Your task to perform on an android device: Open sound settings Image 0: 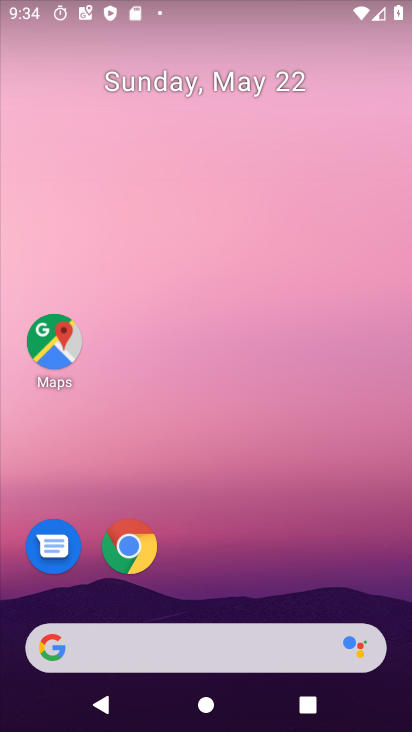
Step 0: click (310, 1)
Your task to perform on an android device: Open sound settings Image 1: 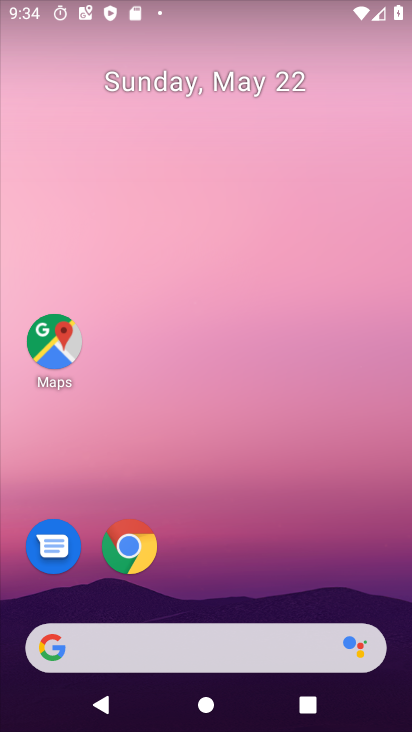
Step 1: drag from (204, 579) to (272, 68)
Your task to perform on an android device: Open sound settings Image 2: 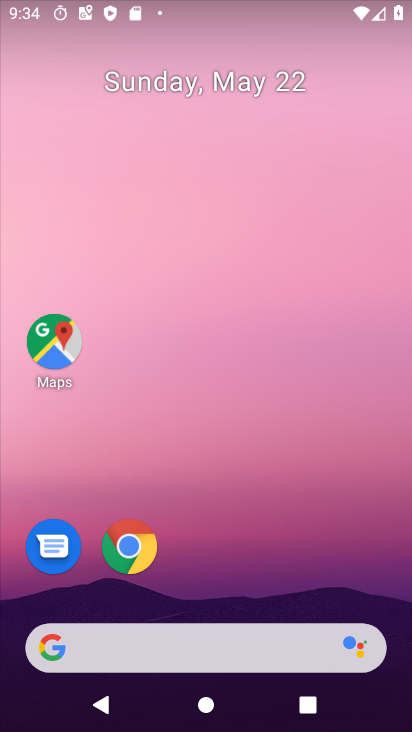
Step 2: drag from (190, 560) to (302, 68)
Your task to perform on an android device: Open sound settings Image 3: 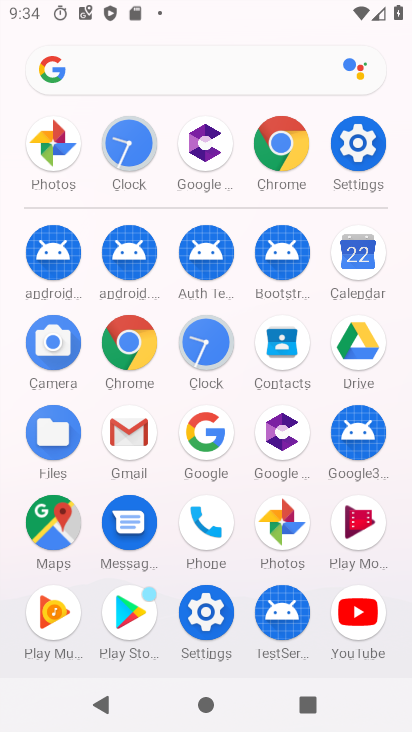
Step 3: click (350, 149)
Your task to perform on an android device: Open sound settings Image 4: 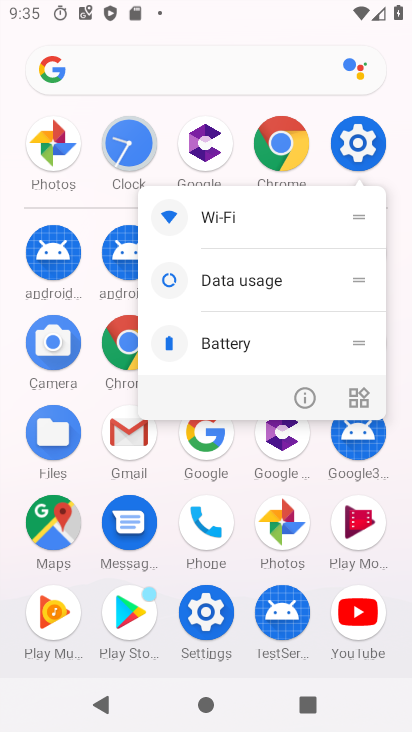
Step 4: click (302, 397)
Your task to perform on an android device: Open sound settings Image 5: 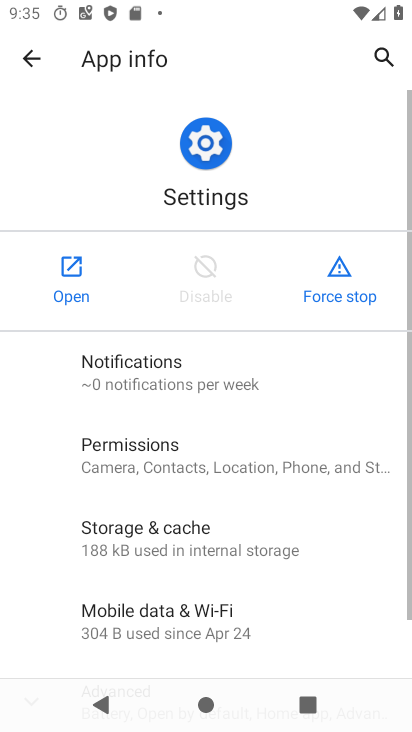
Step 5: click (78, 302)
Your task to perform on an android device: Open sound settings Image 6: 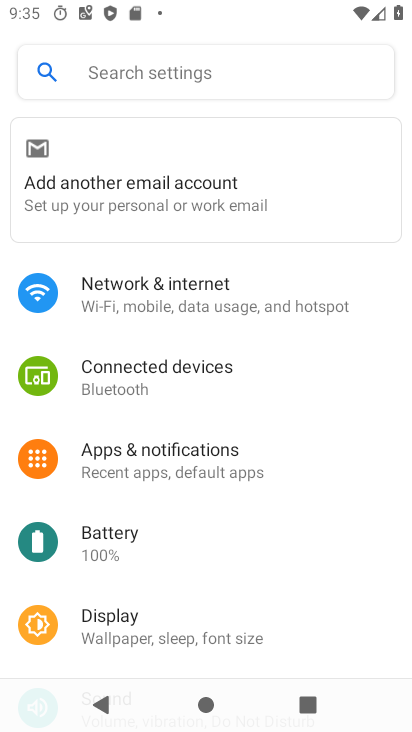
Step 6: drag from (217, 586) to (348, 1)
Your task to perform on an android device: Open sound settings Image 7: 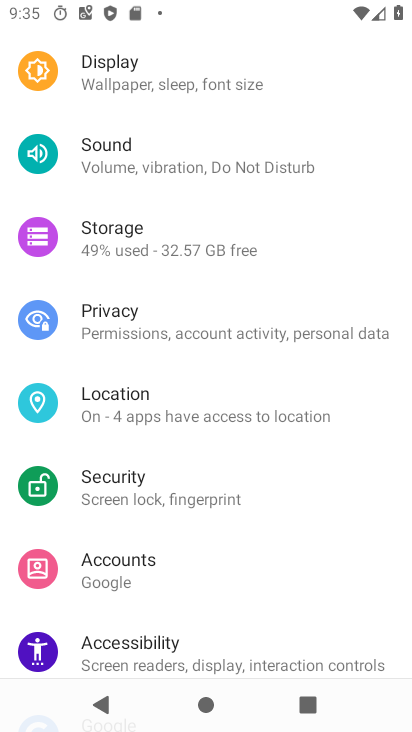
Step 7: click (171, 172)
Your task to perform on an android device: Open sound settings Image 8: 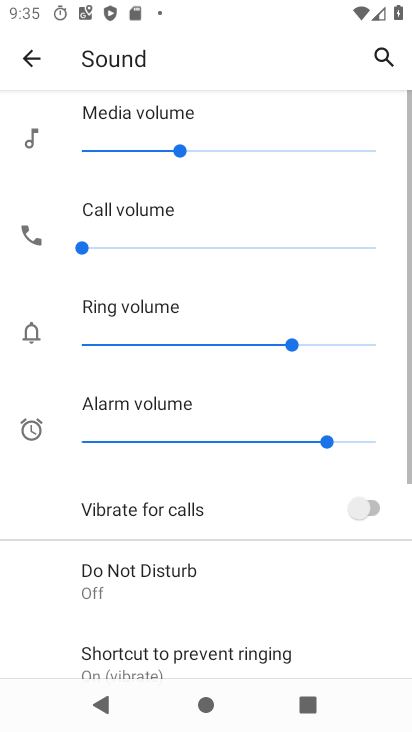
Step 8: task complete